Your task to perform on an android device: Search for a home improvement project you can do. Image 0: 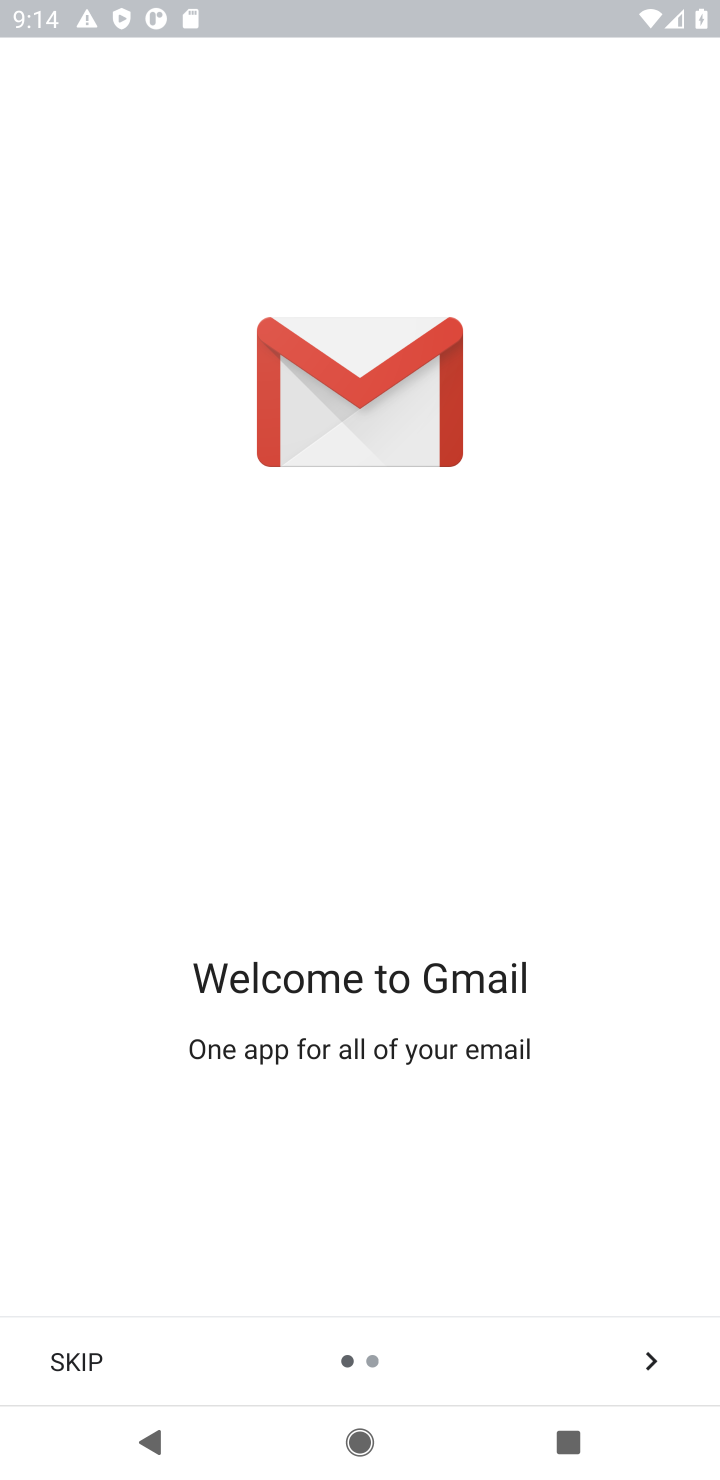
Step 0: press home button
Your task to perform on an android device: Search for a home improvement project you can do. Image 1: 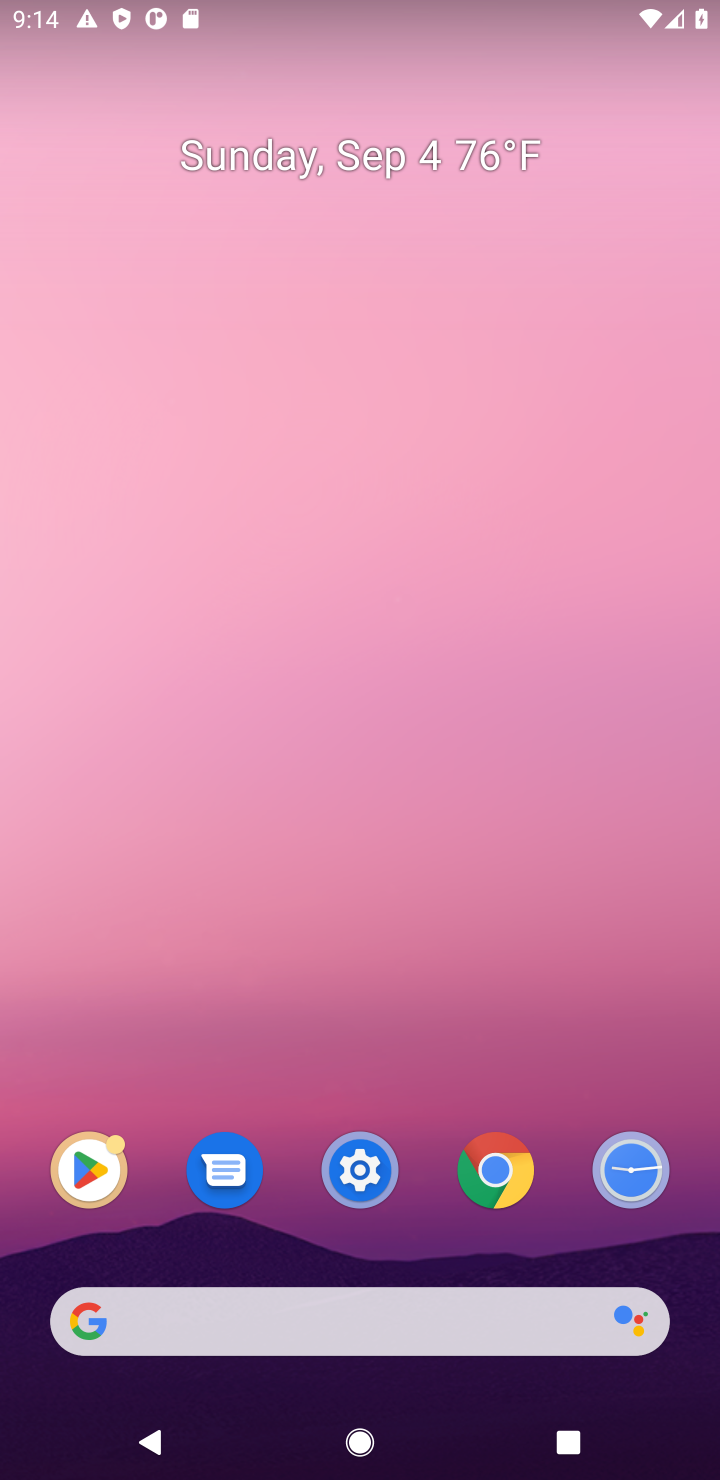
Step 1: click (454, 1333)
Your task to perform on an android device: Search for a home improvement project you can do. Image 2: 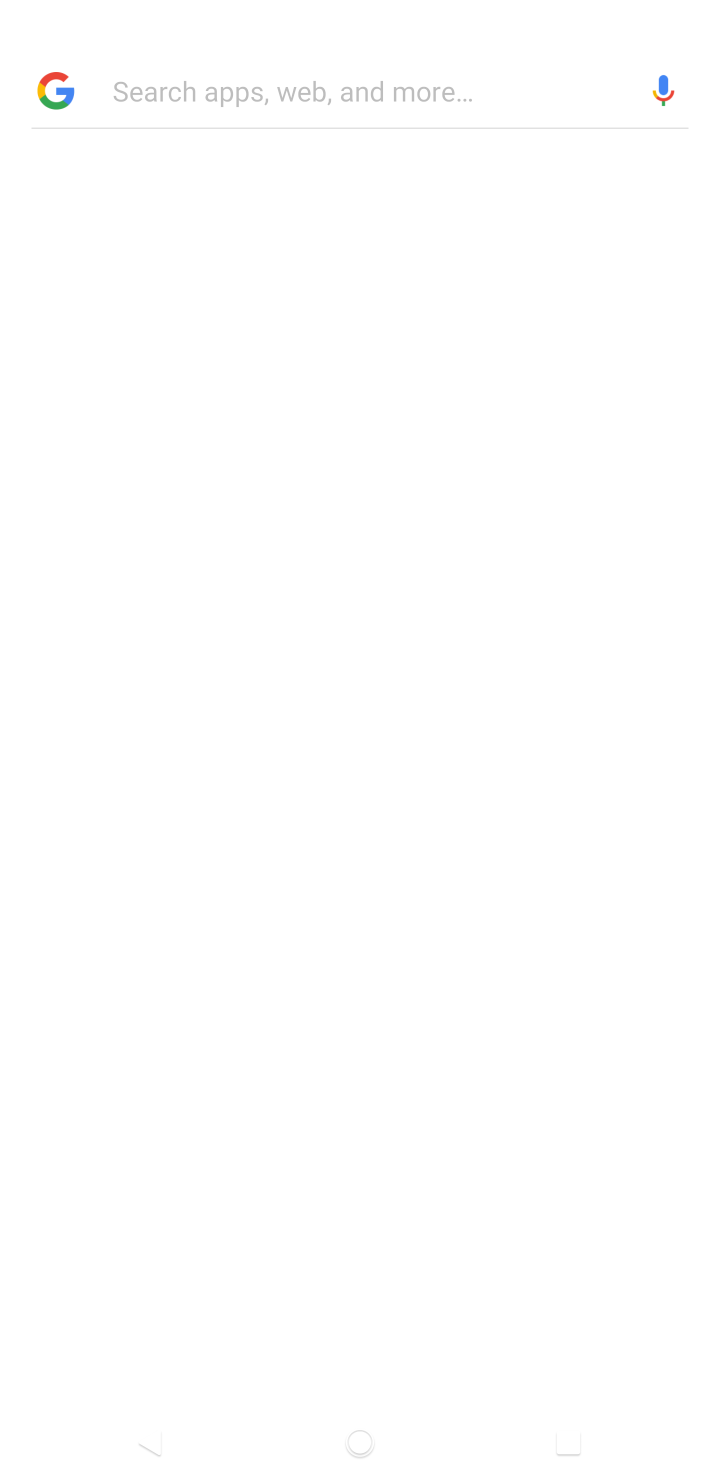
Step 2: click (371, 1329)
Your task to perform on an android device: Search for a home improvement project you can do. Image 3: 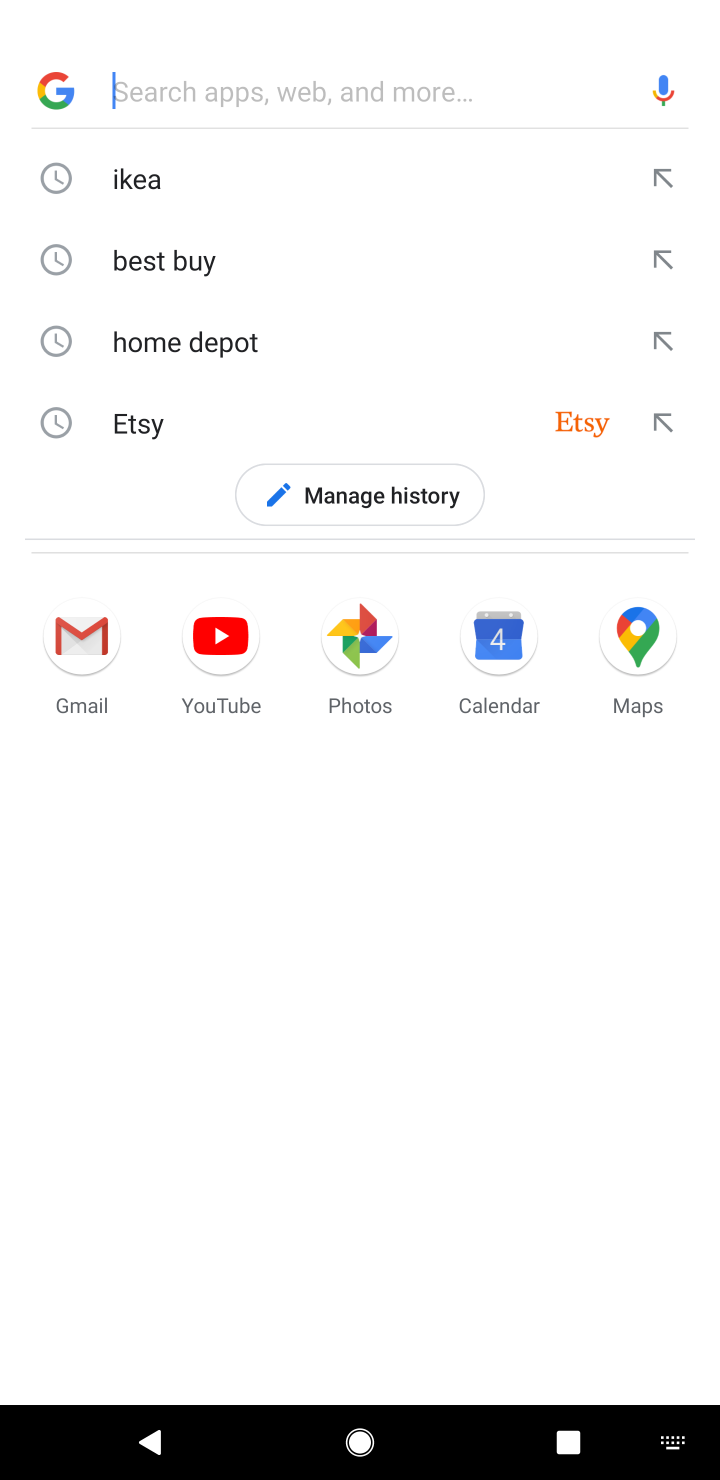
Step 3: type "home improvement project you can do"
Your task to perform on an android device: Search for a home improvement project you can do. Image 4: 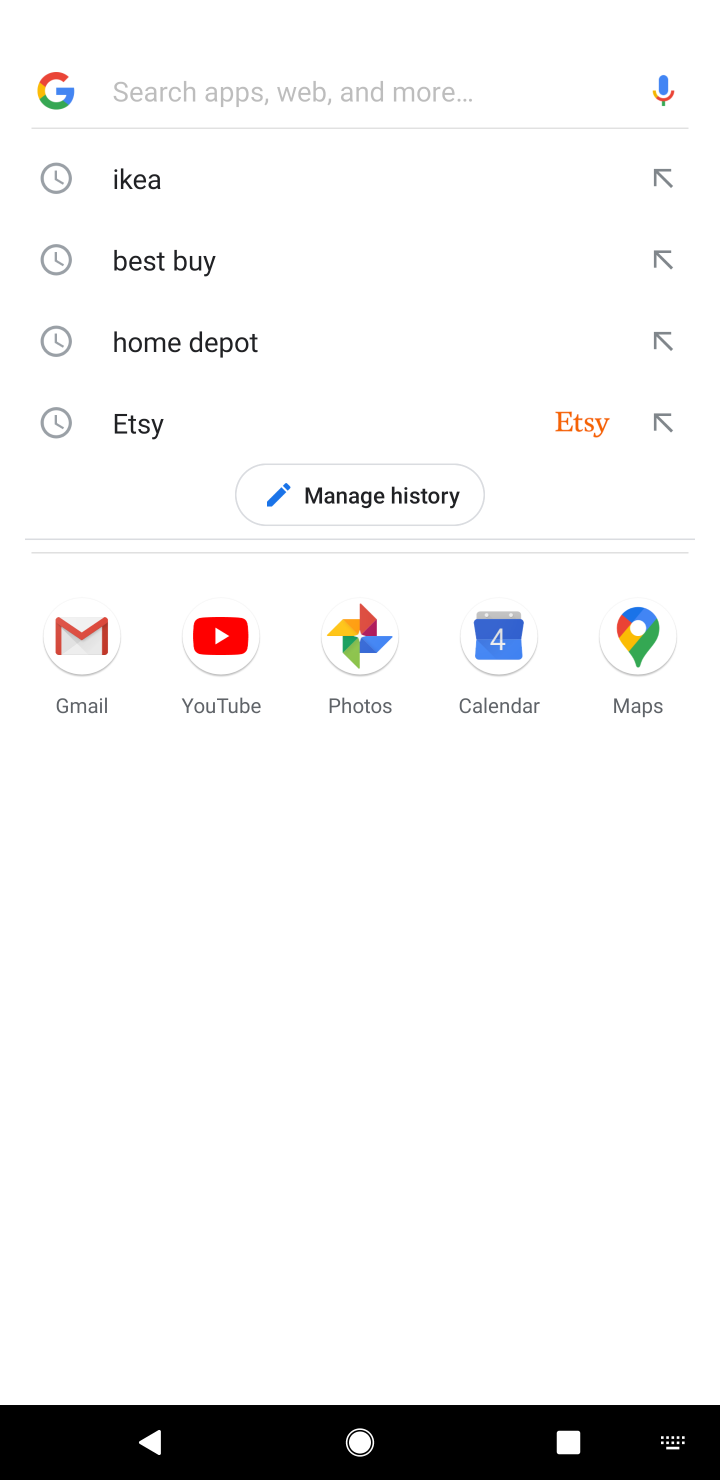
Step 4: click (362, 93)
Your task to perform on an android device: Search for a home improvement project you can do. Image 5: 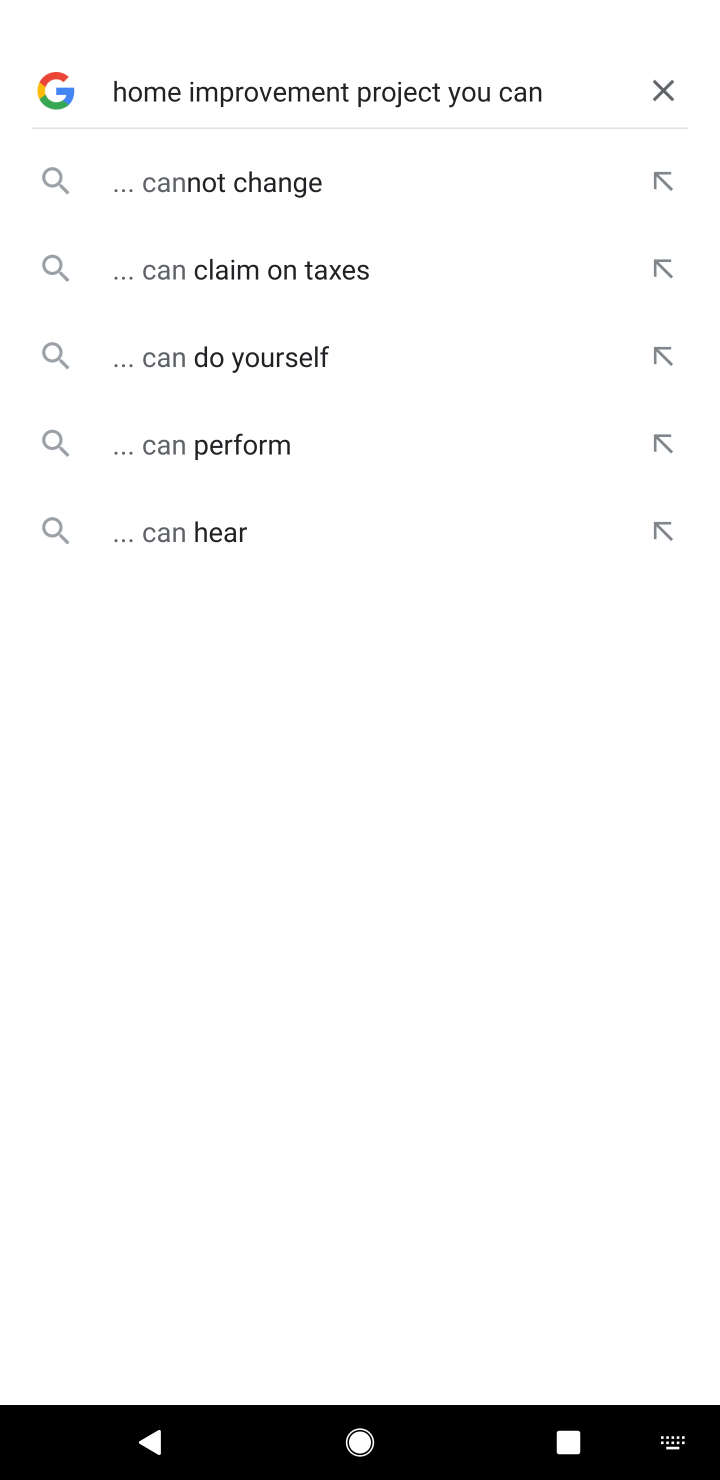
Step 5: type ""
Your task to perform on an android device: Search for a home improvement project you can do. Image 6: 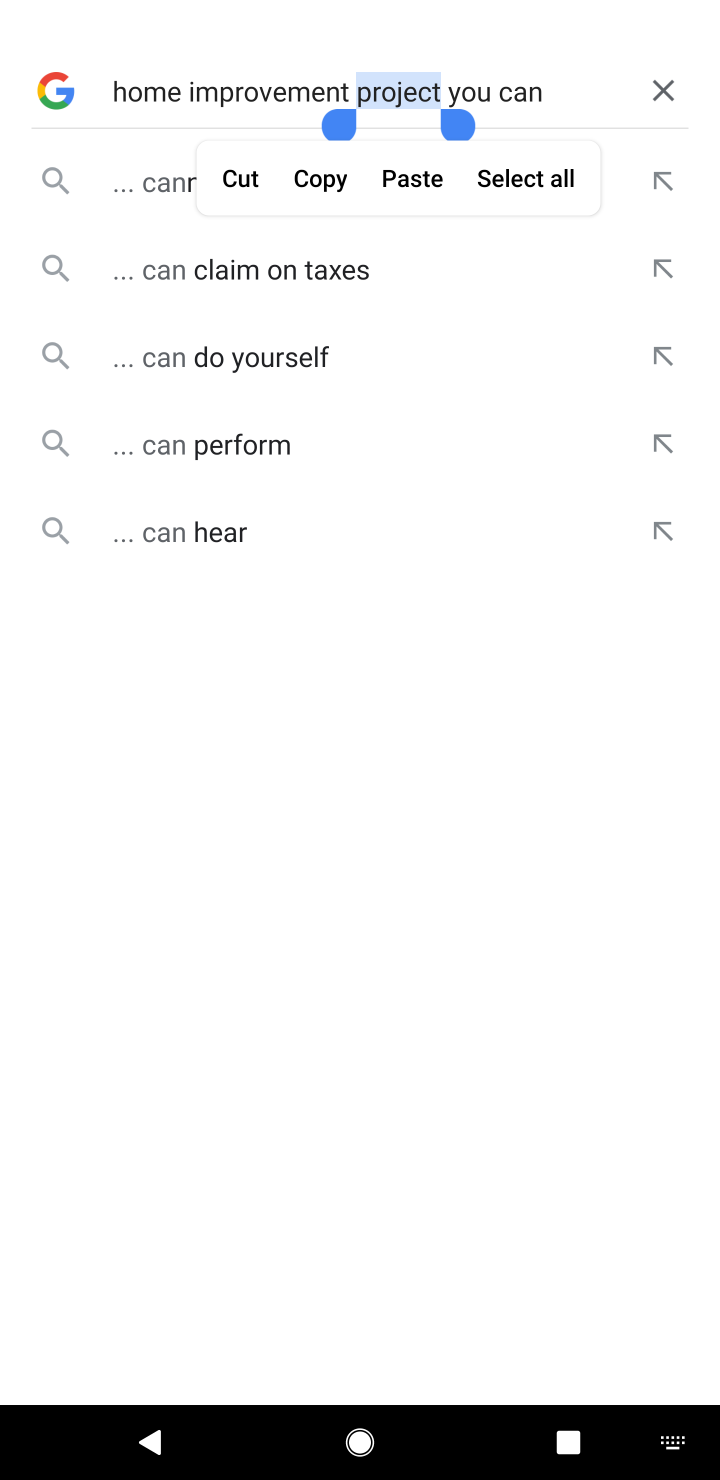
Step 6: click (302, 448)
Your task to perform on an android device: Search for a home improvement project you can do. Image 7: 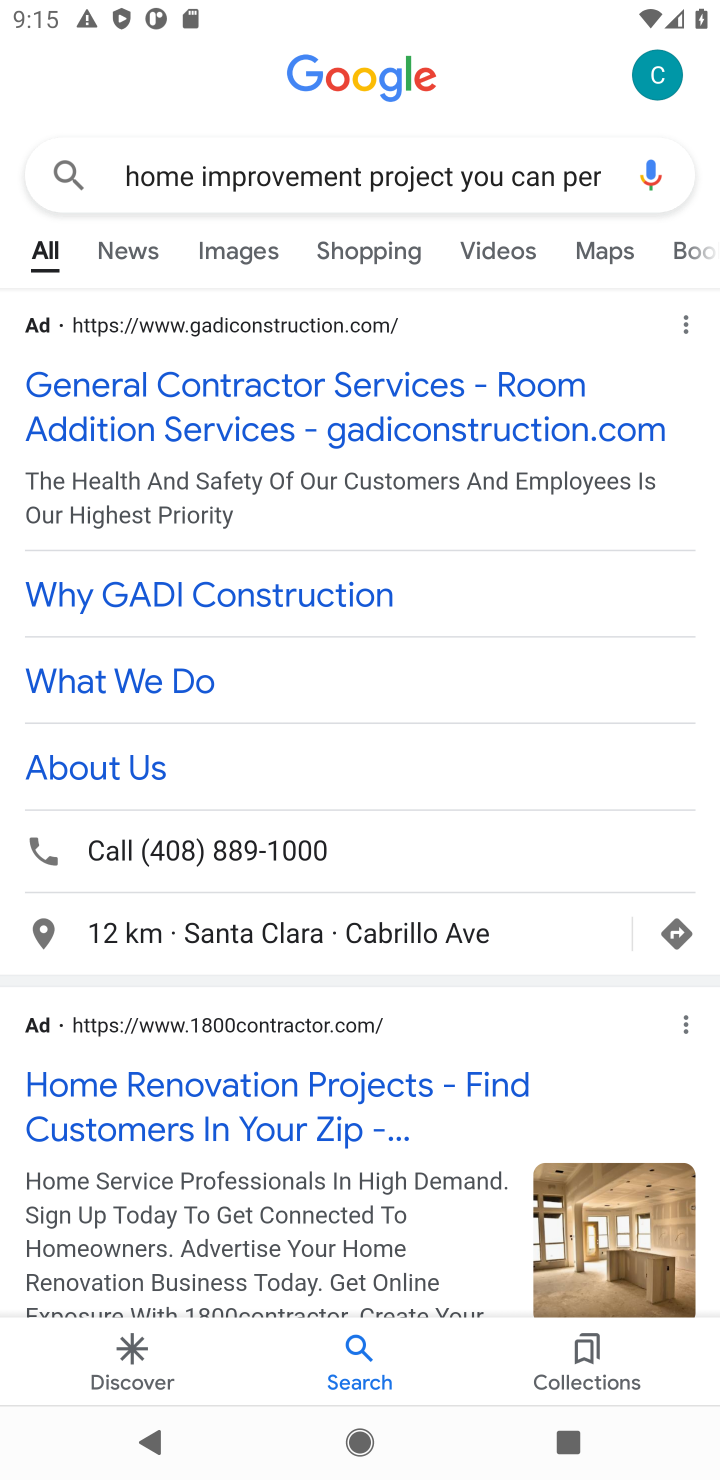
Step 7: drag from (331, 977) to (432, 501)
Your task to perform on an android device: Search for a home improvement project you can do. Image 8: 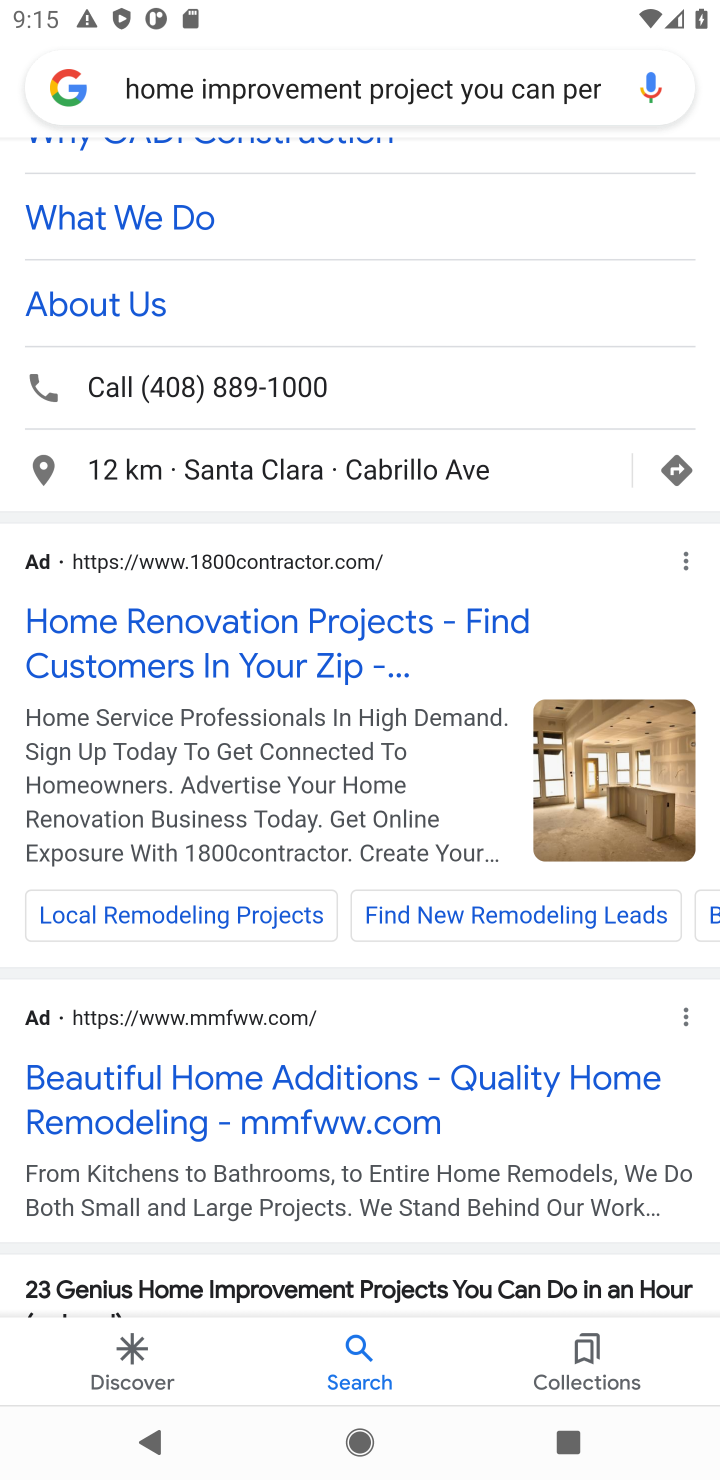
Step 8: drag from (270, 1190) to (450, 501)
Your task to perform on an android device: Search for a home improvement project you can do. Image 9: 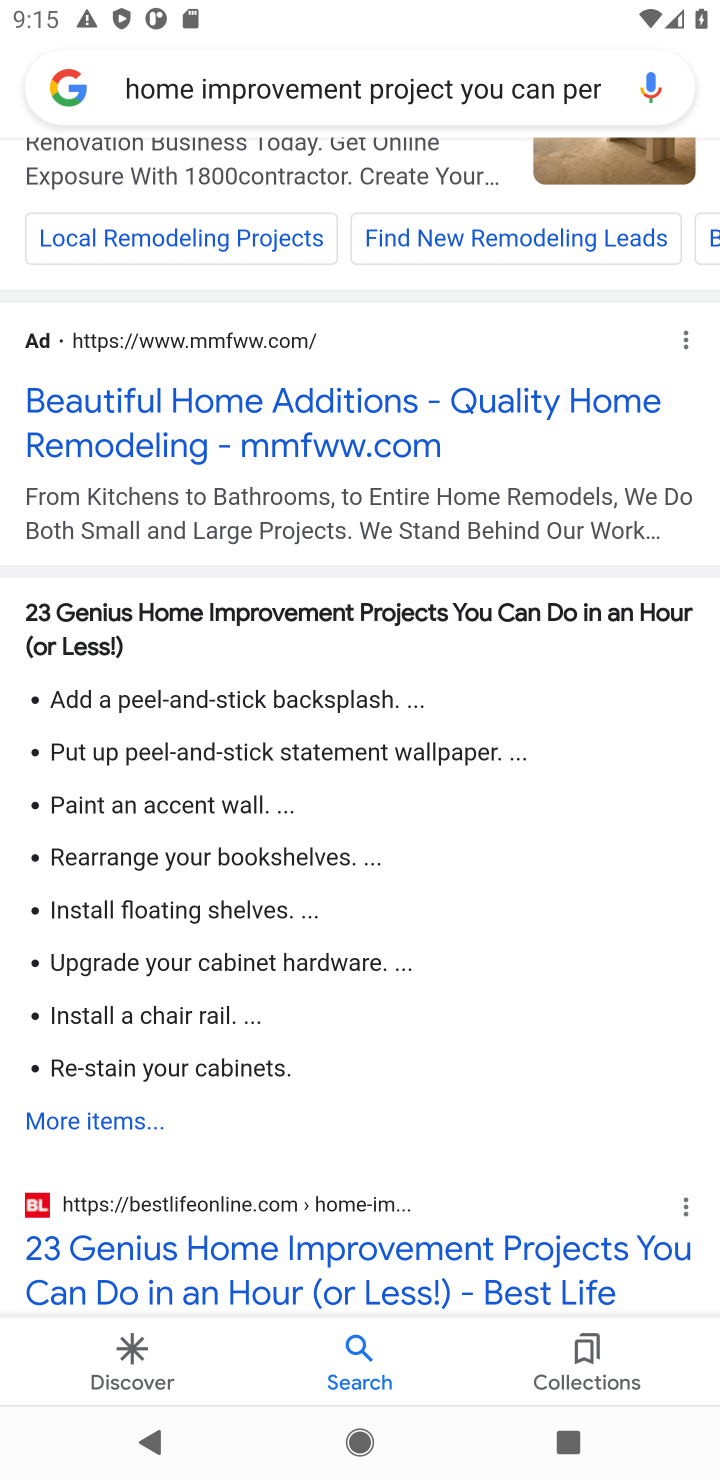
Step 9: click (357, 578)
Your task to perform on an android device: Search for a home improvement project you can do. Image 10: 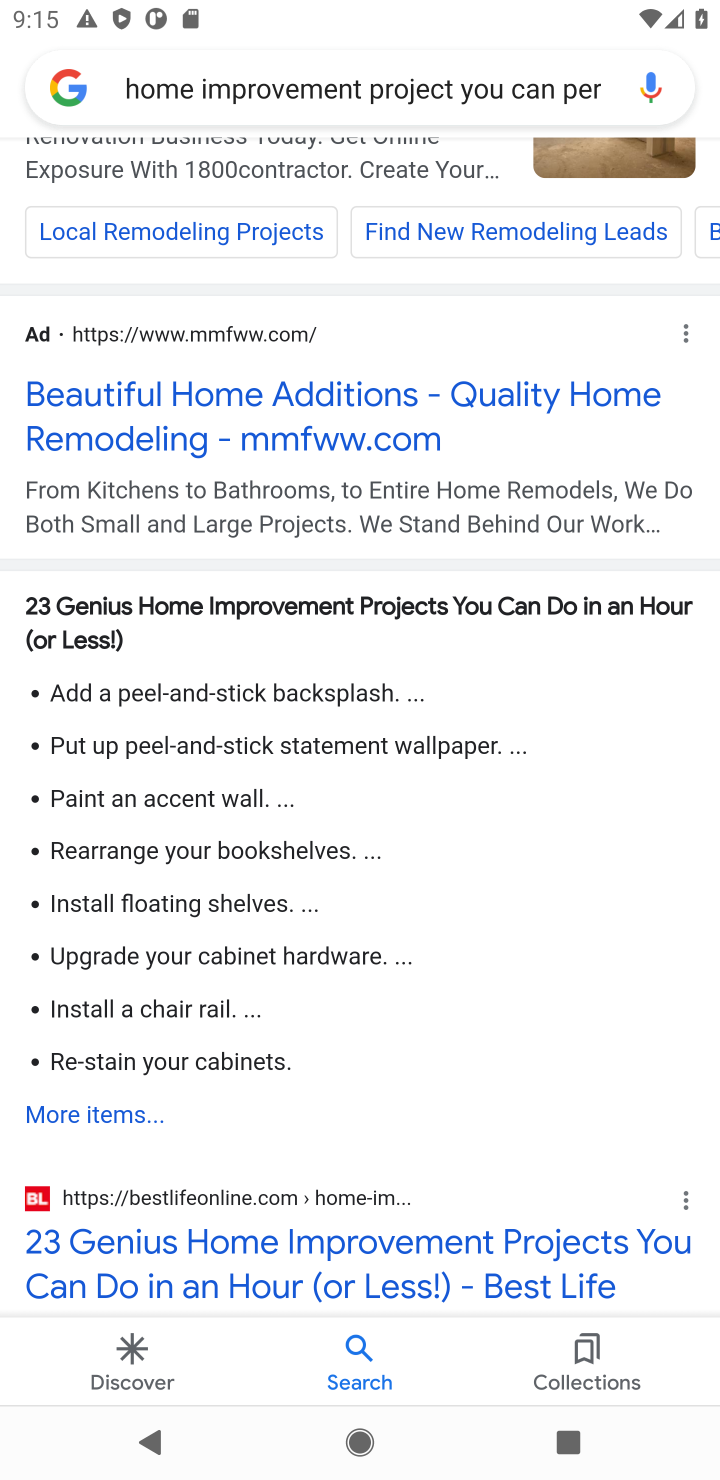
Step 10: drag from (320, 1022) to (346, 689)
Your task to perform on an android device: Search for a home improvement project you can do. Image 11: 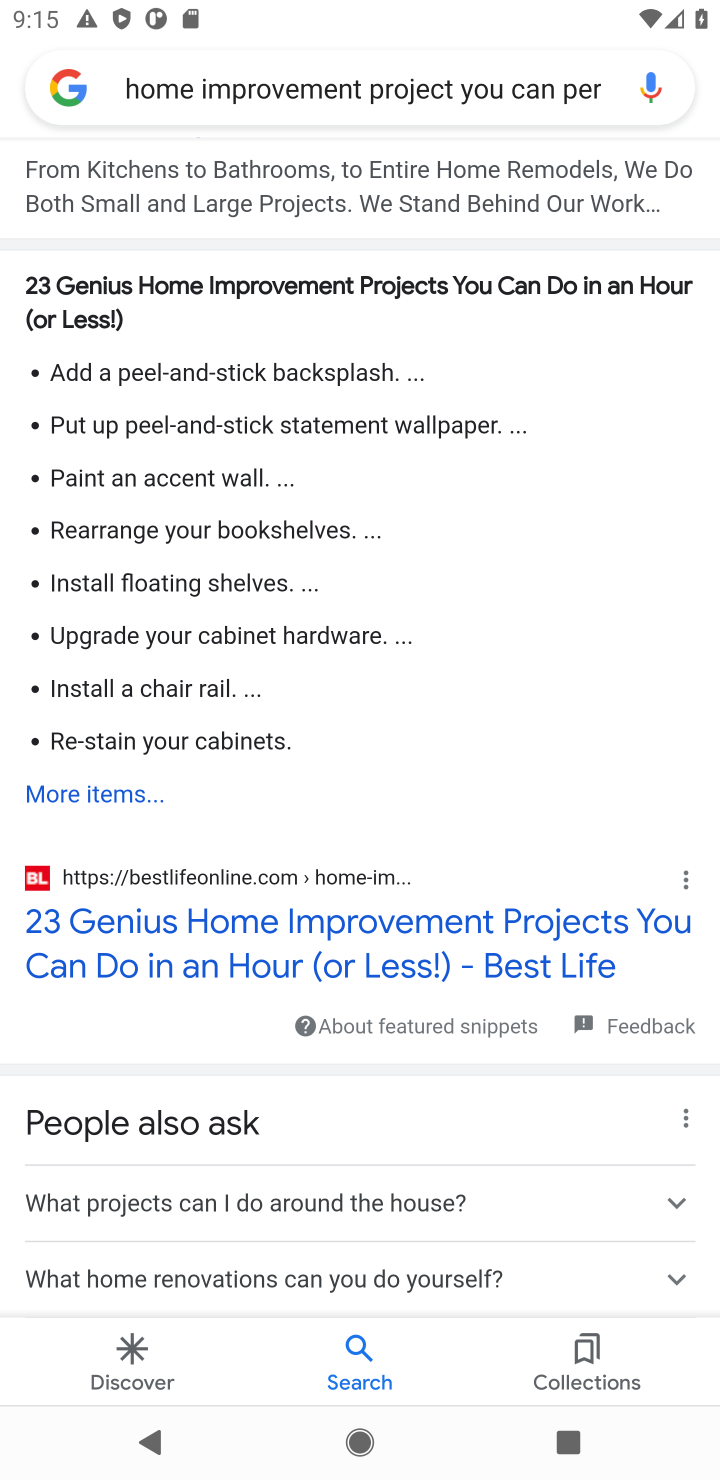
Step 11: drag from (302, 1043) to (360, 600)
Your task to perform on an android device: Search for a home improvement project you can do. Image 12: 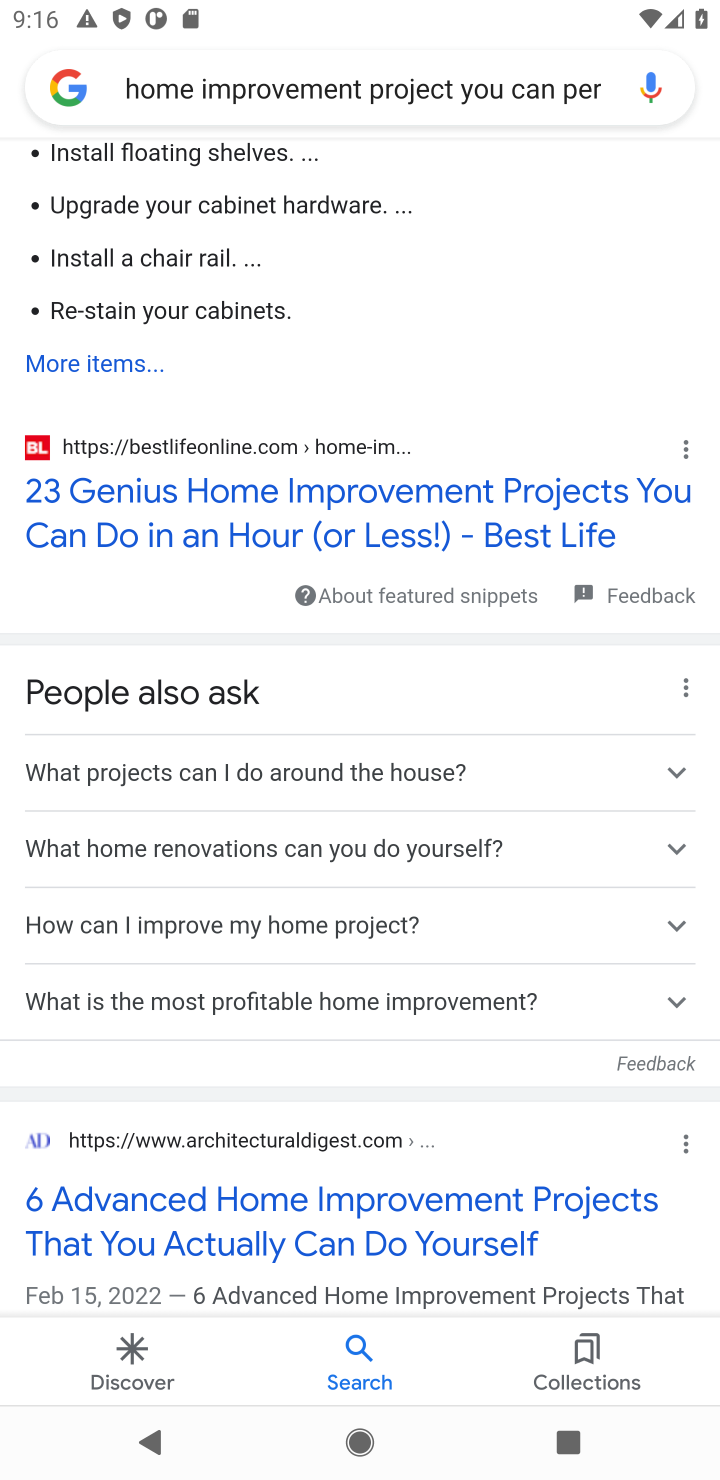
Step 12: drag from (556, 697) to (577, 525)
Your task to perform on an android device: Search for a home improvement project you can do. Image 13: 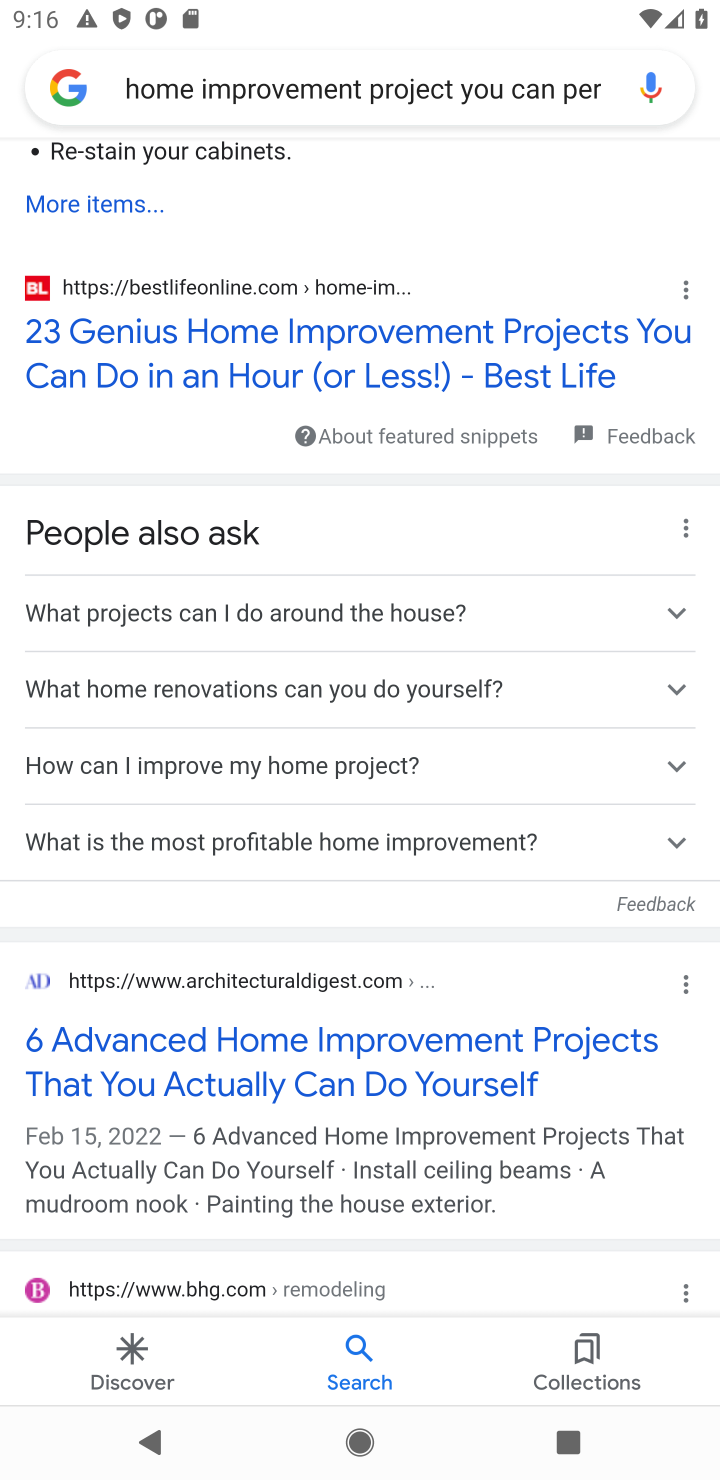
Step 13: drag from (537, 462) to (535, 772)
Your task to perform on an android device: Search for a home improvement project you can do. Image 14: 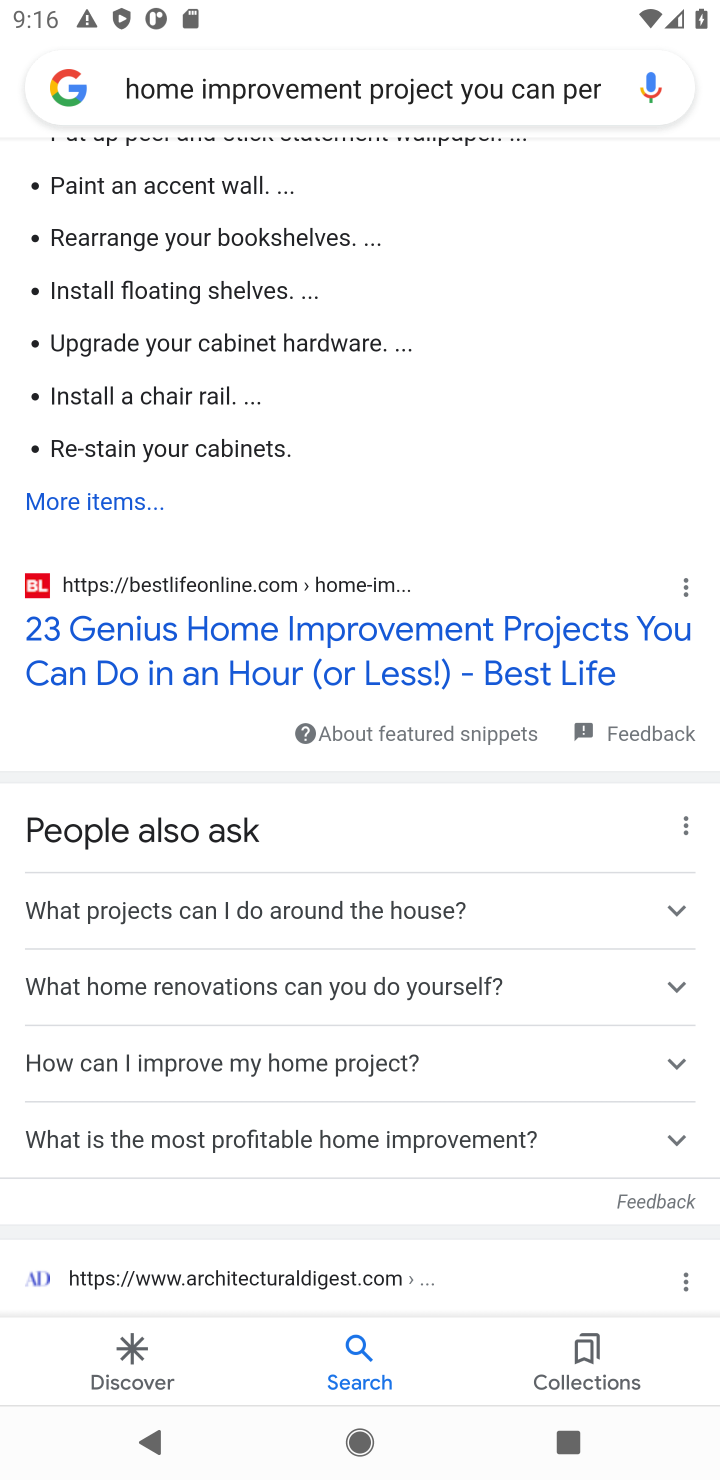
Step 14: click (549, 814)
Your task to perform on an android device: Search for a home improvement project you can do. Image 15: 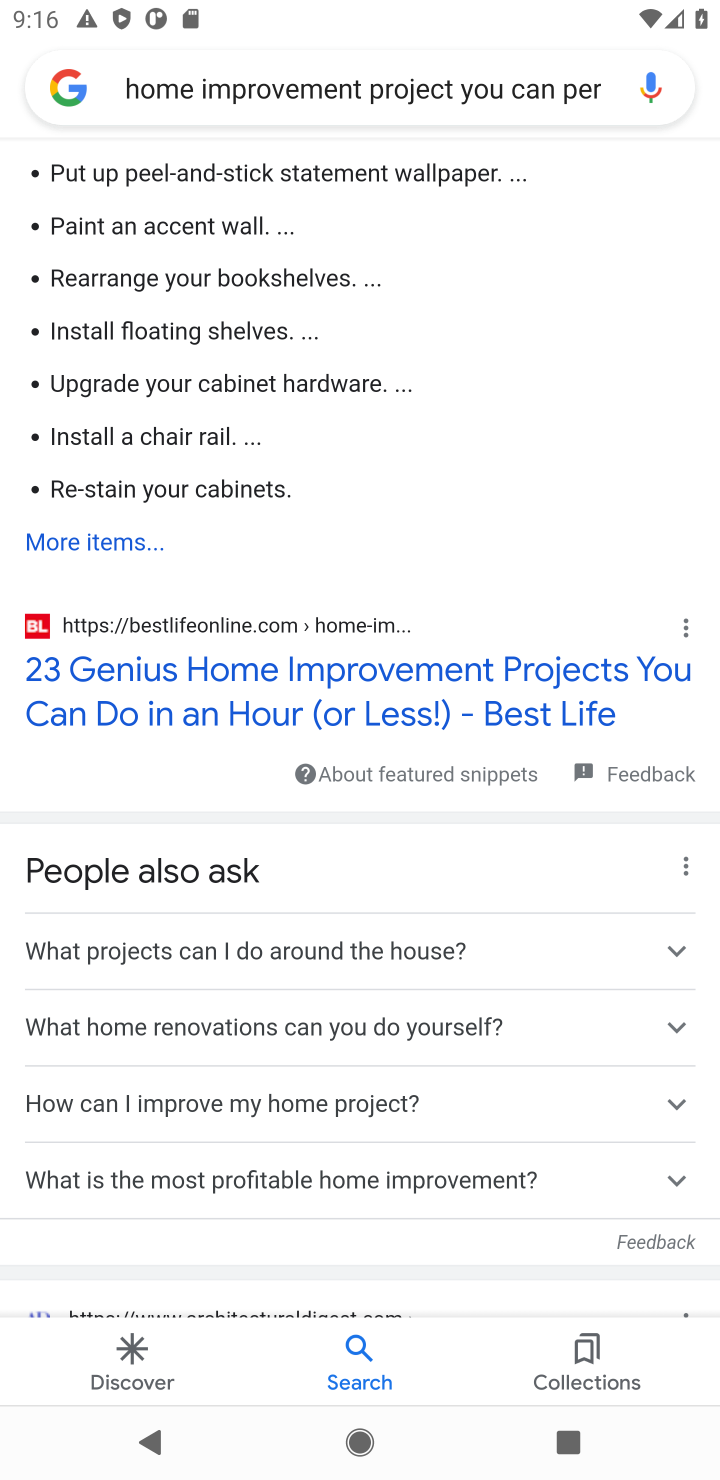
Step 15: click (583, 1042)
Your task to perform on an android device: Search for a home improvement project you can do. Image 16: 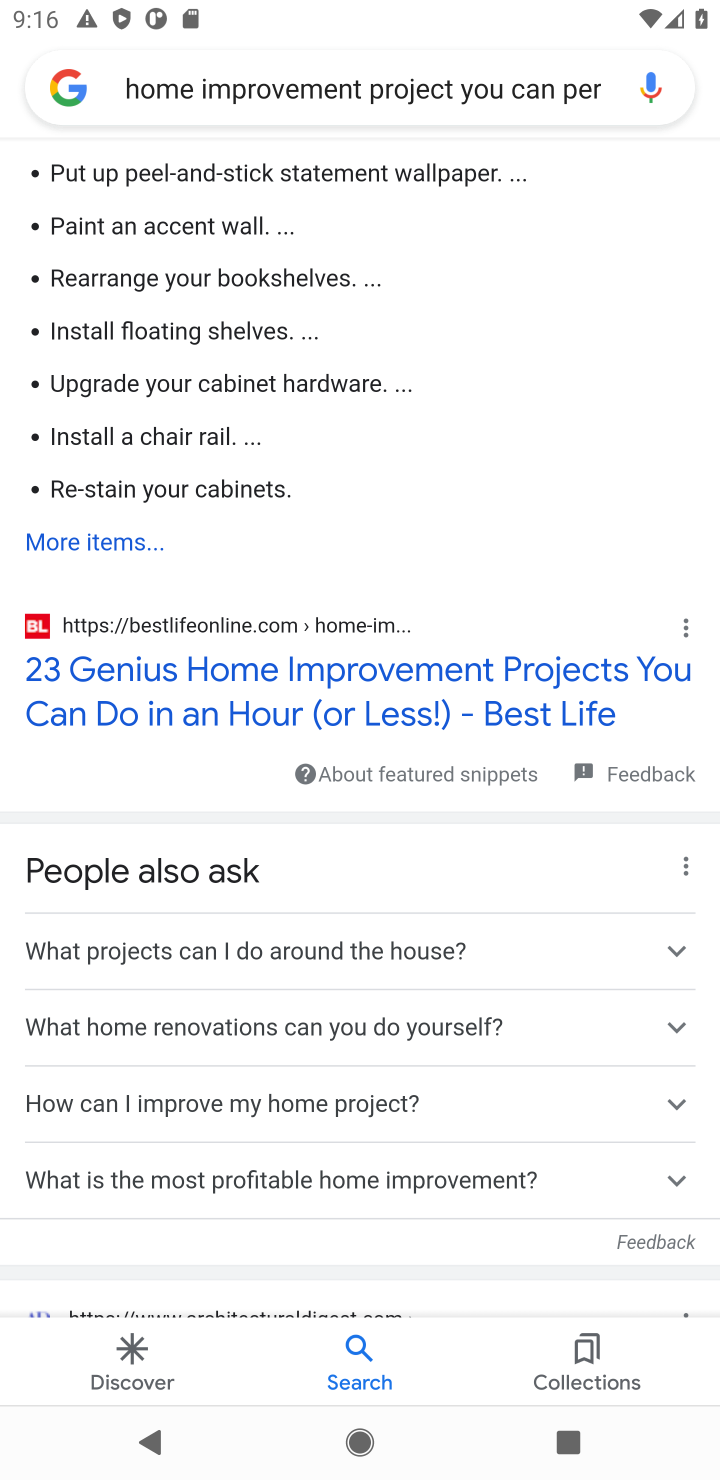
Step 16: click (616, 802)
Your task to perform on an android device: Search for a home improvement project you can do. Image 17: 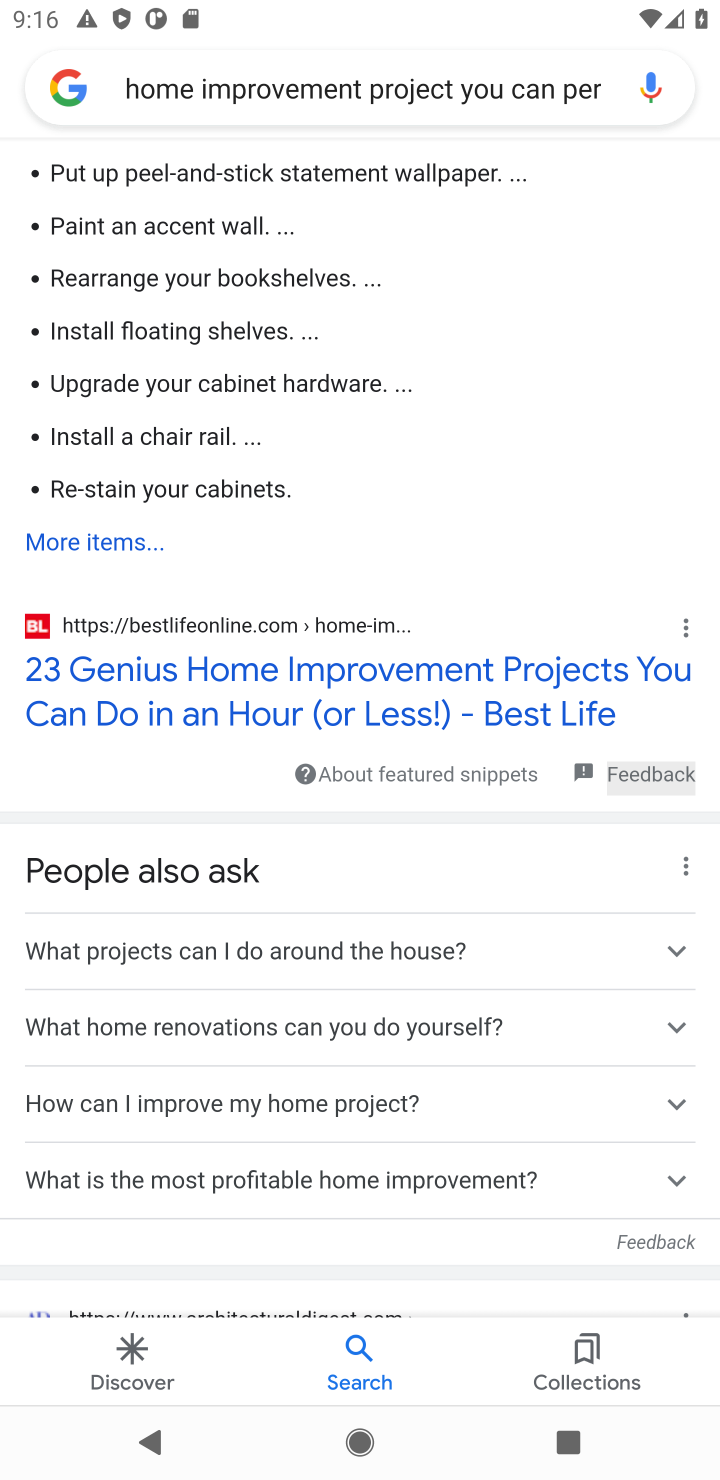
Step 17: task complete